Your task to perform on an android device: Open Maps and search for coffee Image 0: 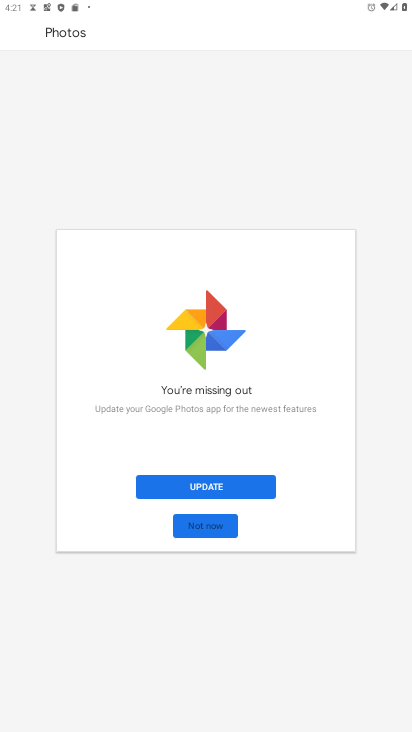
Step 0: press home button
Your task to perform on an android device: Open Maps and search for coffee Image 1: 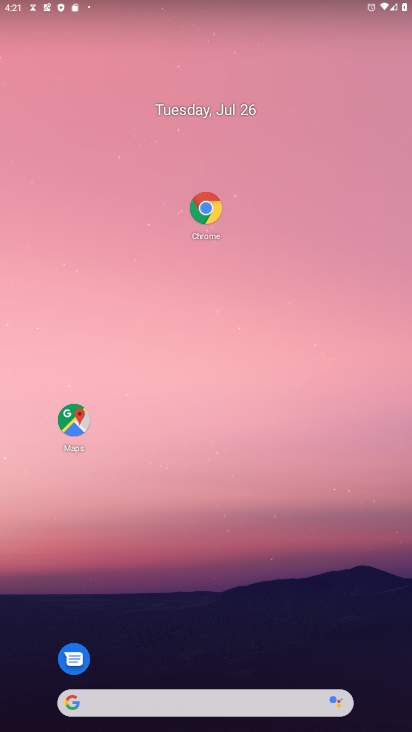
Step 1: click (68, 420)
Your task to perform on an android device: Open Maps and search for coffee Image 2: 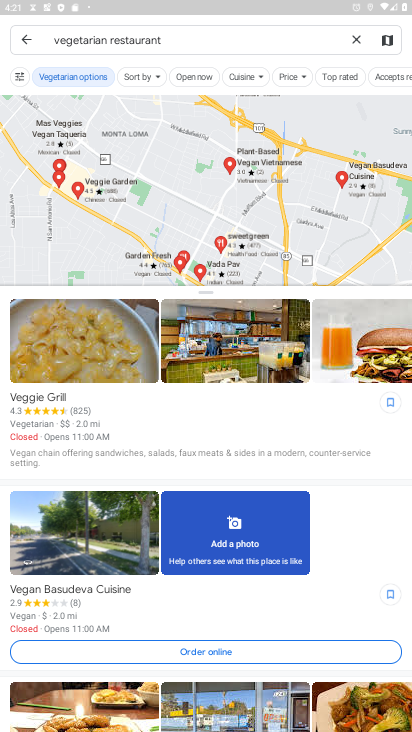
Step 2: click (24, 39)
Your task to perform on an android device: Open Maps and search for coffee Image 3: 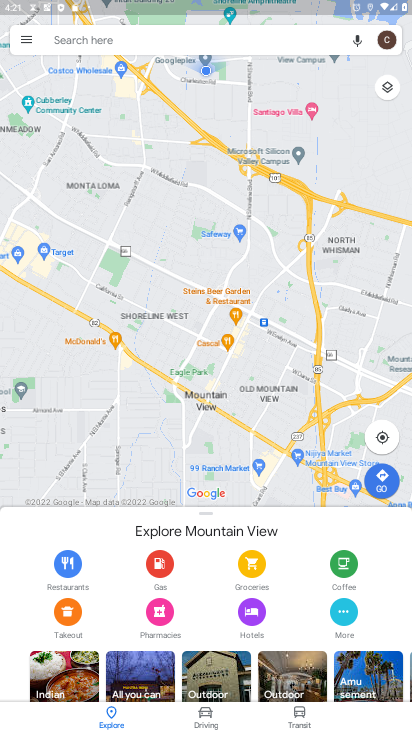
Step 3: click (132, 37)
Your task to perform on an android device: Open Maps and search for coffee Image 4: 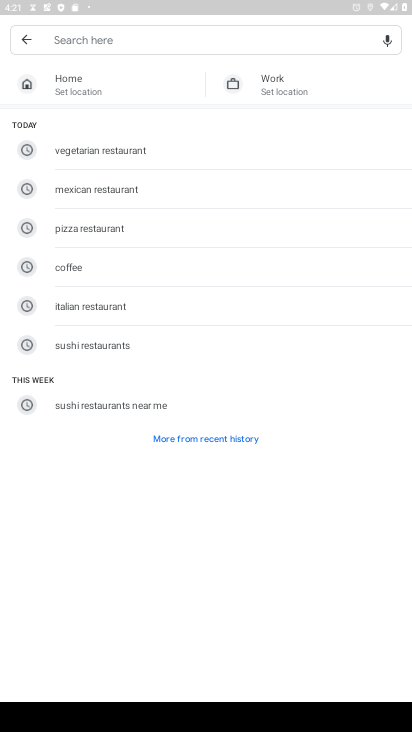
Step 4: click (76, 271)
Your task to perform on an android device: Open Maps and search for coffee Image 5: 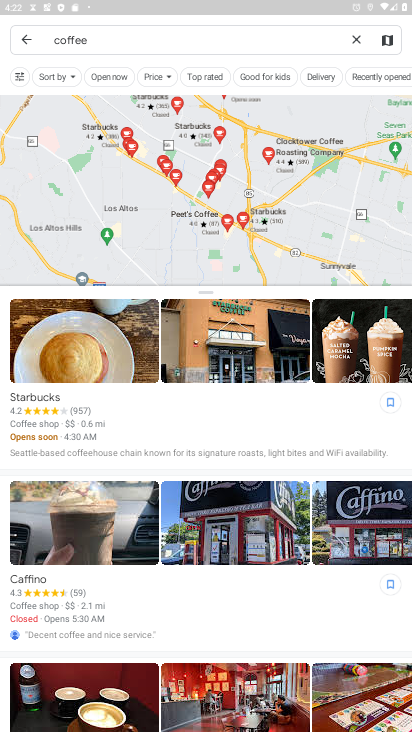
Step 5: task complete